Your task to perform on an android device: What's on my calendar tomorrow? Image 0: 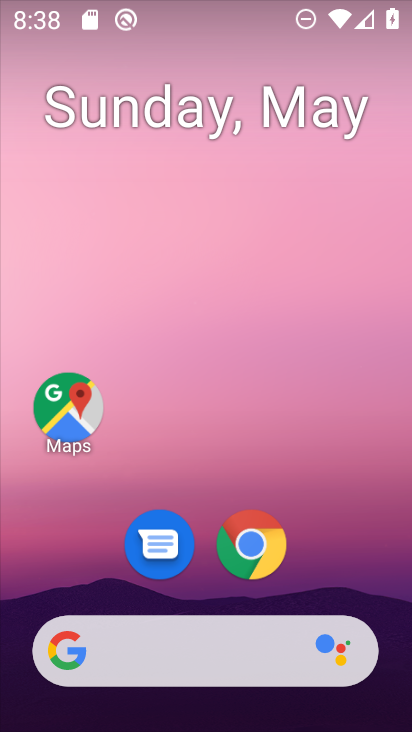
Step 0: drag from (342, 516) to (276, 10)
Your task to perform on an android device: What's on my calendar tomorrow? Image 1: 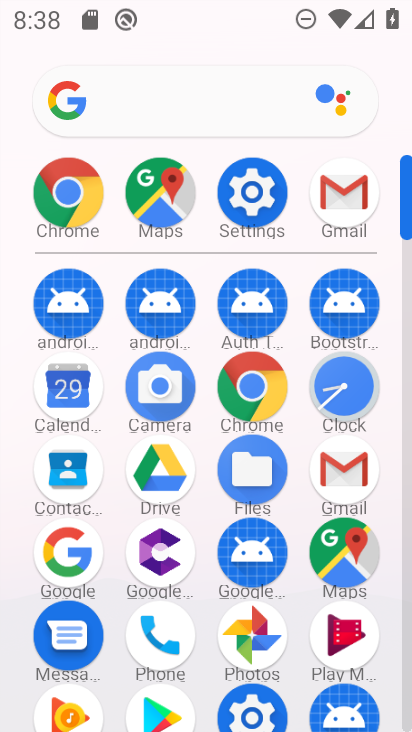
Step 1: drag from (5, 444) to (4, 237)
Your task to perform on an android device: What's on my calendar tomorrow? Image 2: 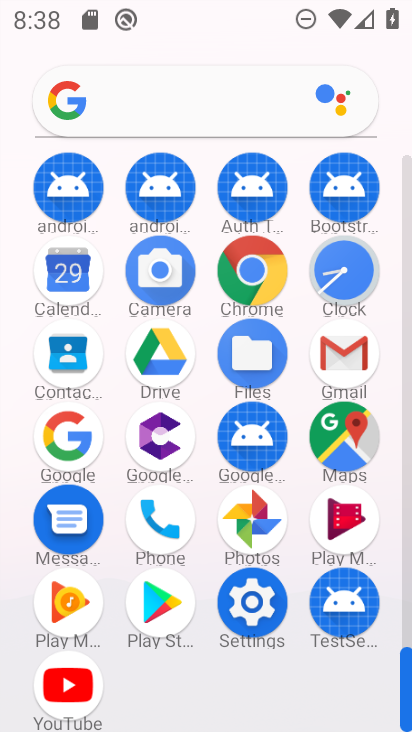
Step 2: click (67, 263)
Your task to perform on an android device: What's on my calendar tomorrow? Image 3: 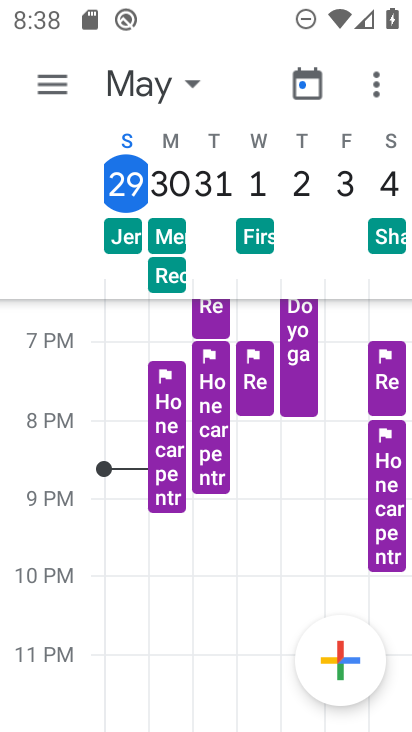
Step 3: click (59, 79)
Your task to perform on an android device: What's on my calendar tomorrow? Image 4: 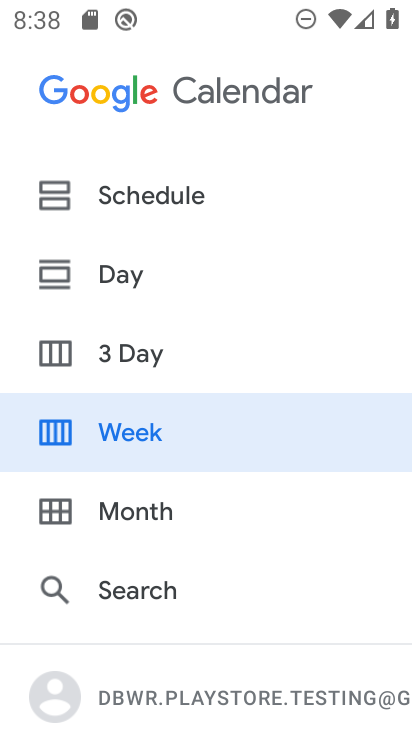
Step 4: click (138, 260)
Your task to perform on an android device: What's on my calendar tomorrow? Image 5: 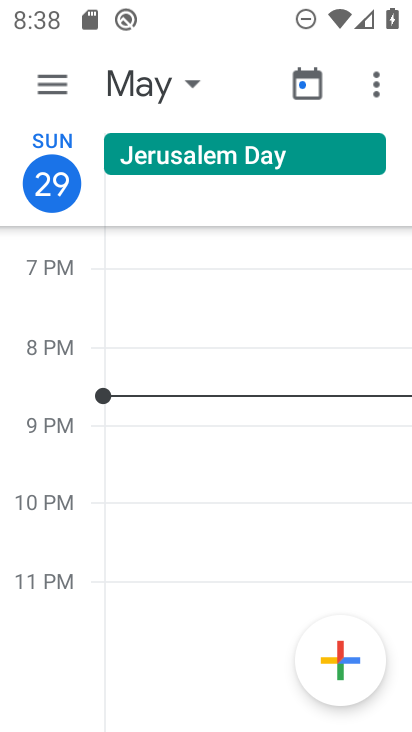
Step 5: task complete